Your task to perform on an android device: Open calendar and show me the fourth week of next month Image 0: 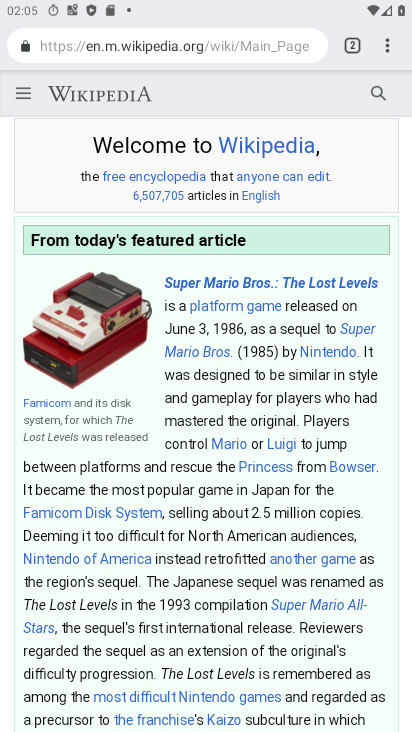
Step 0: press home button
Your task to perform on an android device: Open calendar and show me the fourth week of next month Image 1: 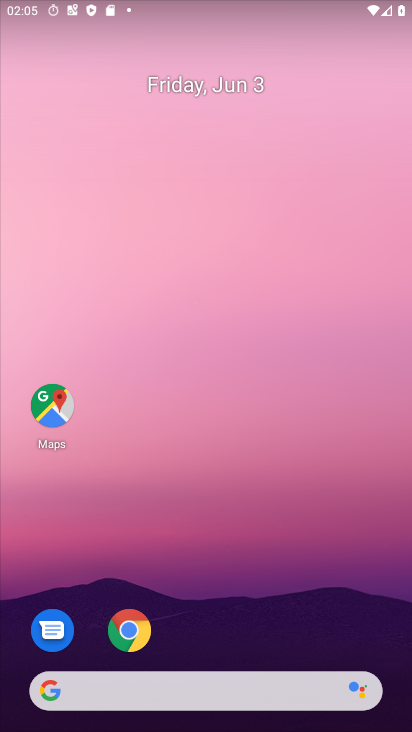
Step 1: drag from (254, 613) to (207, 113)
Your task to perform on an android device: Open calendar and show me the fourth week of next month Image 2: 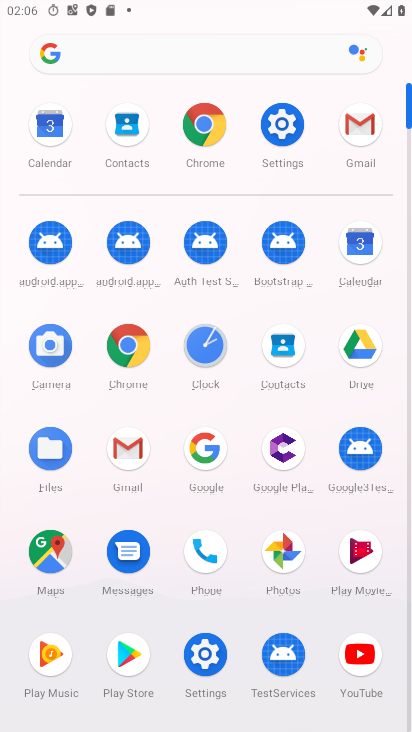
Step 2: click (371, 259)
Your task to perform on an android device: Open calendar and show me the fourth week of next month Image 3: 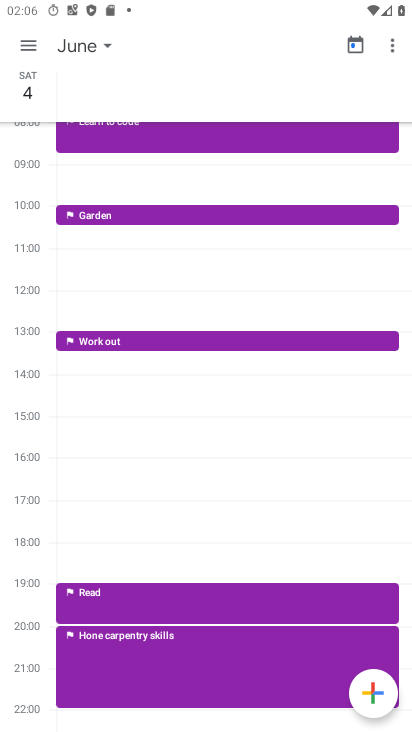
Step 3: click (107, 44)
Your task to perform on an android device: Open calendar and show me the fourth week of next month Image 4: 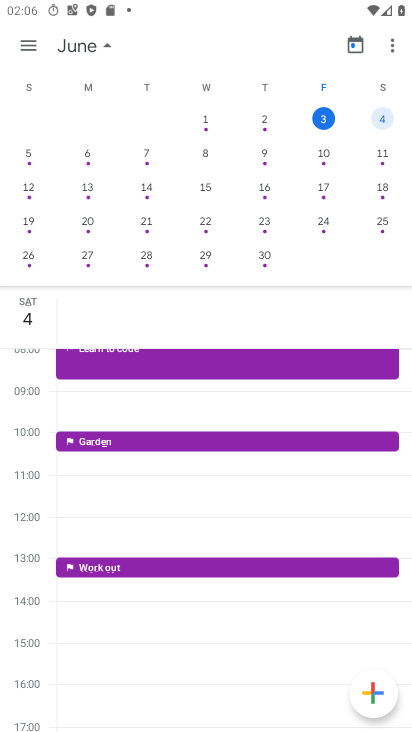
Step 4: click (267, 226)
Your task to perform on an android device: Open calendar and show me the fourth week of next month Image 5: 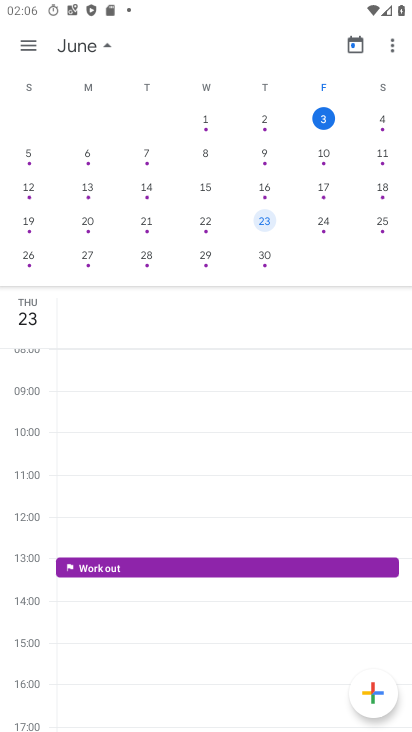
Step 5: task complete